Your task to perform on an android device: change the clock style Image 0: 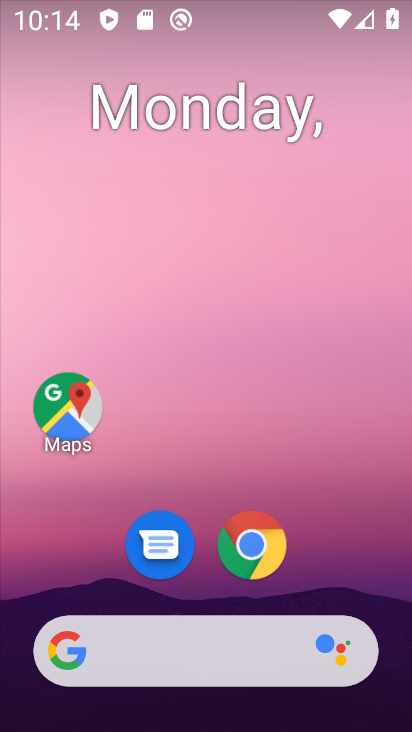
Step 0: drag from (380, 553) to (280, 76)
Your task to perform on an android device: change the clock style Image 1: 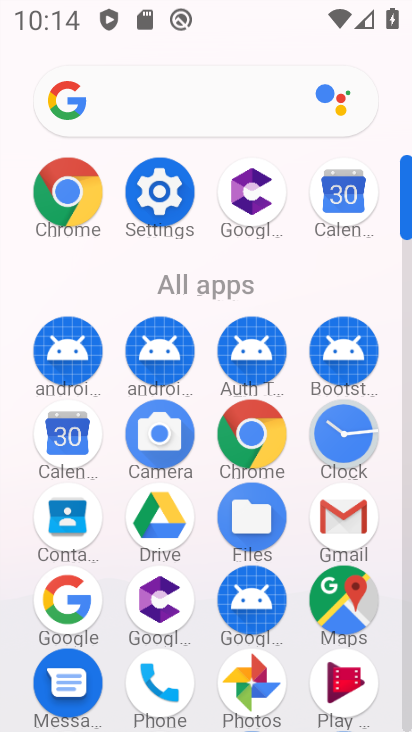
Step 1: click (357, 453)
Your task to perform on an android device: change the clock style Image 2: 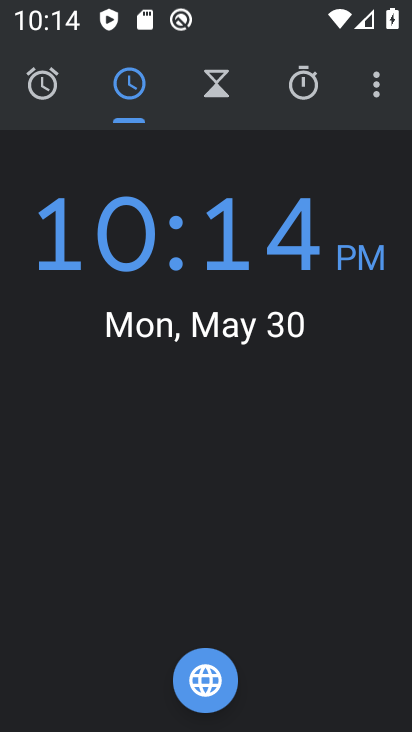
Step 2: click (385, 84)
Your task to perform on an android device: change the clock style Image 3: 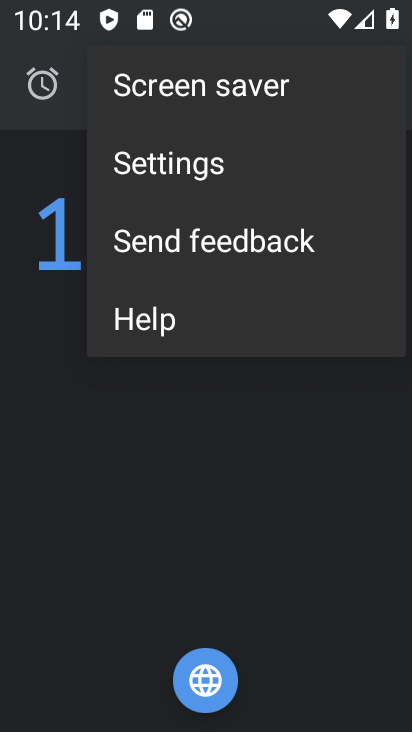
Step 3: click (254, 162)
Your task to perform on an android device: change the clock style Image 4: 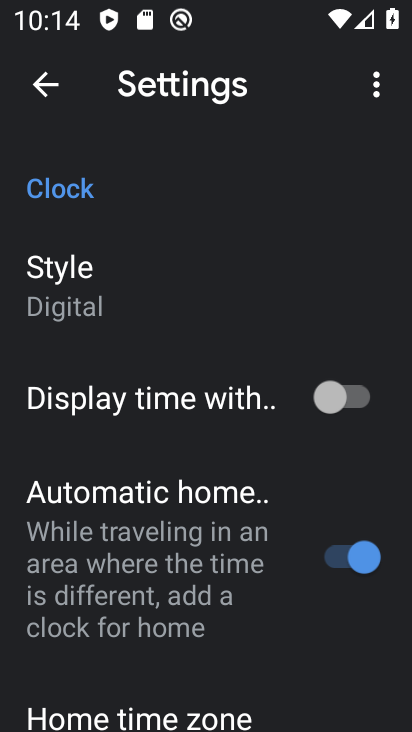
Step 4: click (141, 294)
Your task to perform on an android device: change the clock style Image 5: 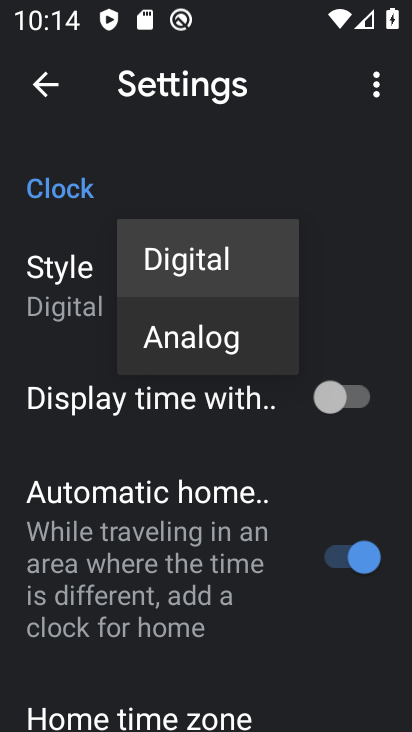
Step 5: click (195, 355)
Your task to perform on an android device: change the clock style Image 6: 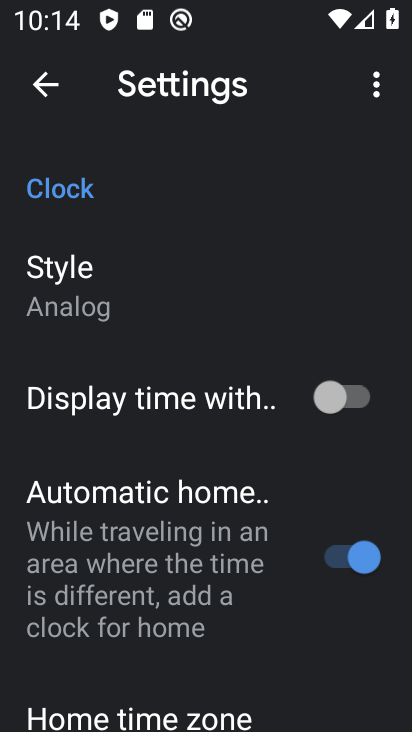
Step 6: task complete